Your task to perform on an android device: clear history in the chrome app Image 0: 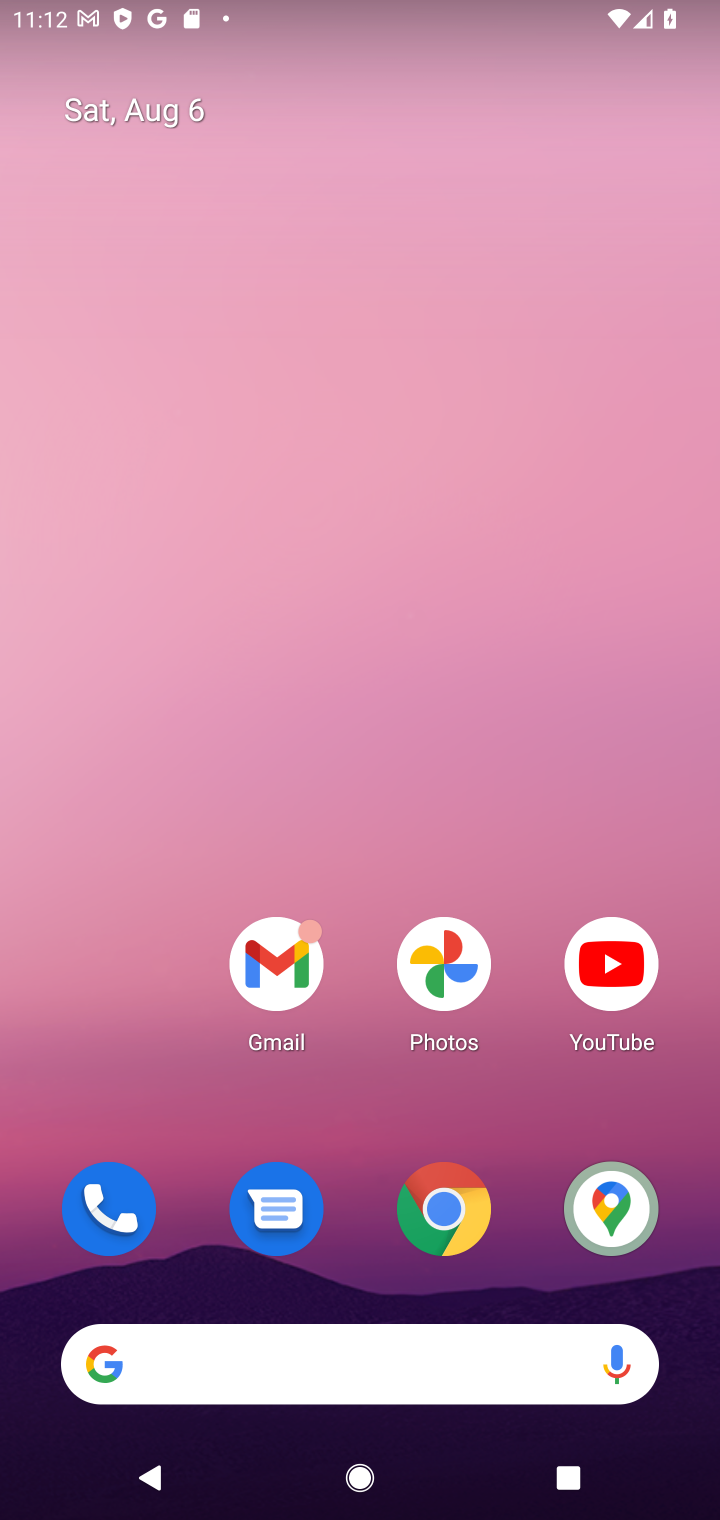
Step 0: drag from (475, 1142) to (393, 12)
Your task to perform on an android device: clear history in the chrome app Image 1: 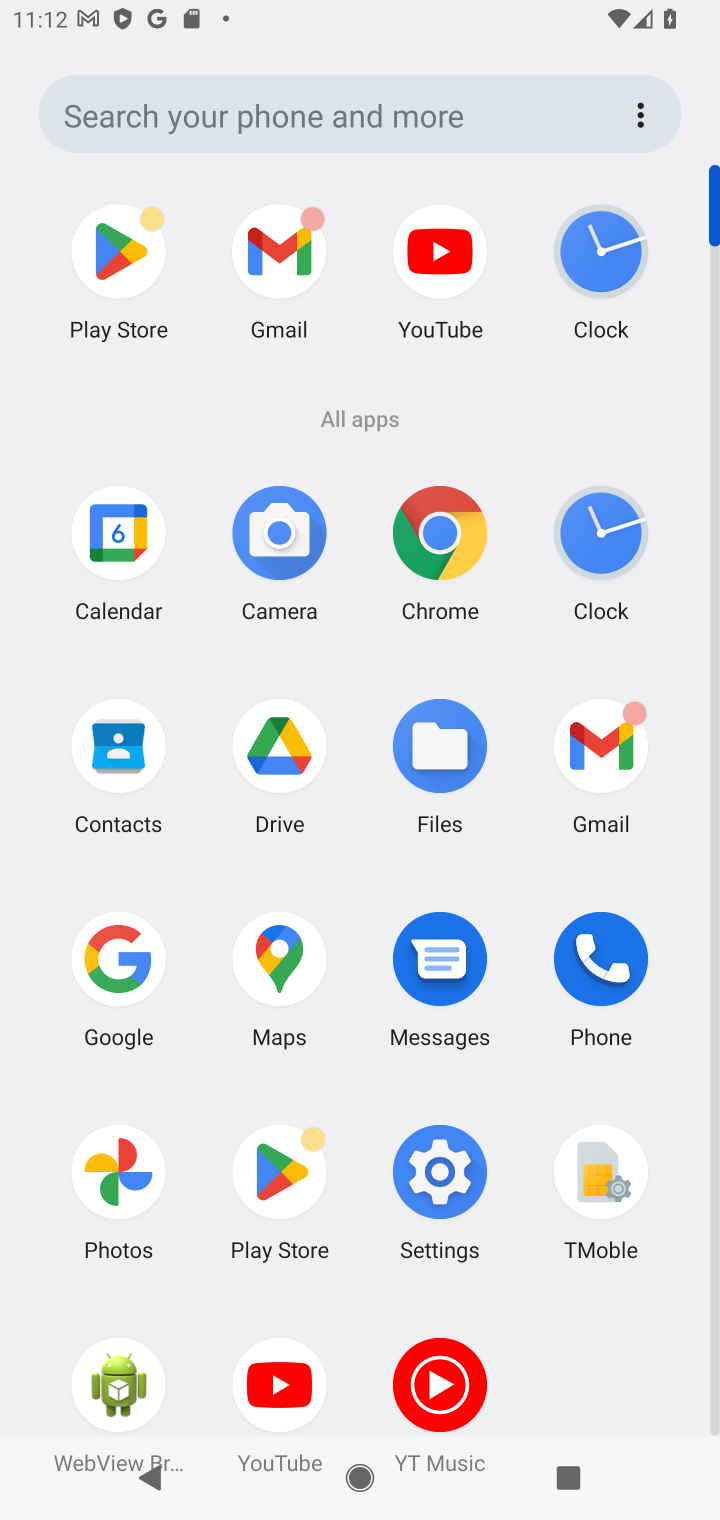
Step 1: click (472, 542)
Your task to perform on an android device: clear history in the chrome app Image 2: 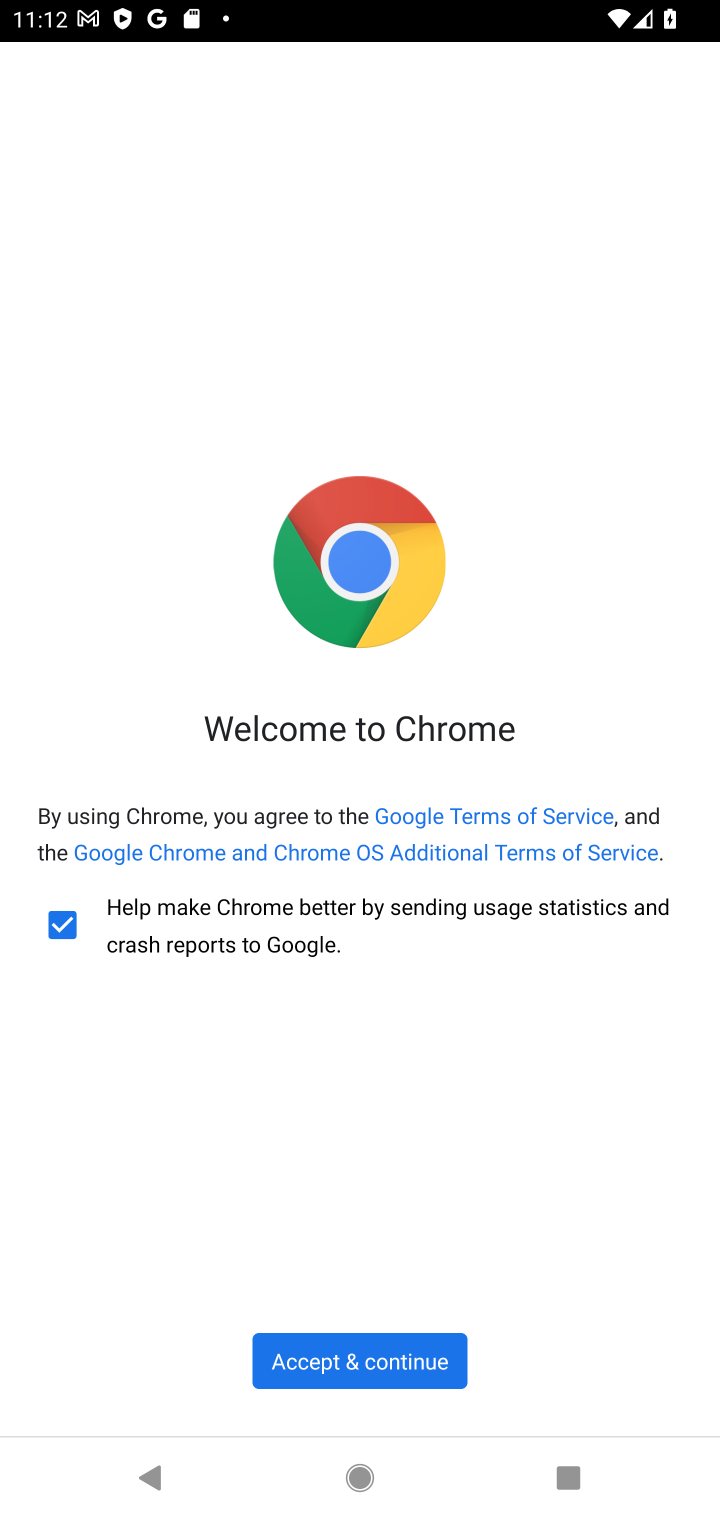
Step 2: click (306, 1358)
Your task to perform on an android device: clear history in the chrome app Image 3: 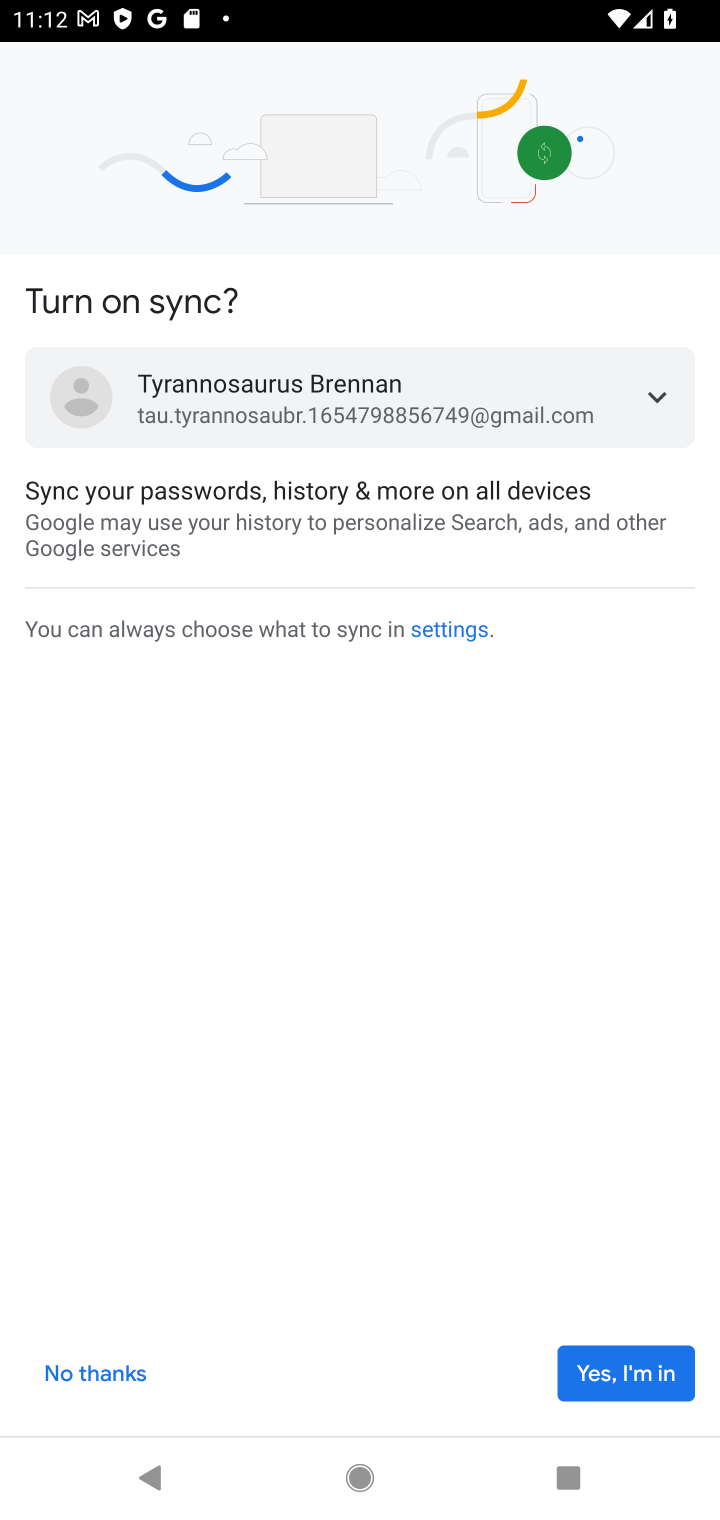
Step 3: click (606, 1357)
Your task to perform on an android device: clear history in the chrome app Image 4: 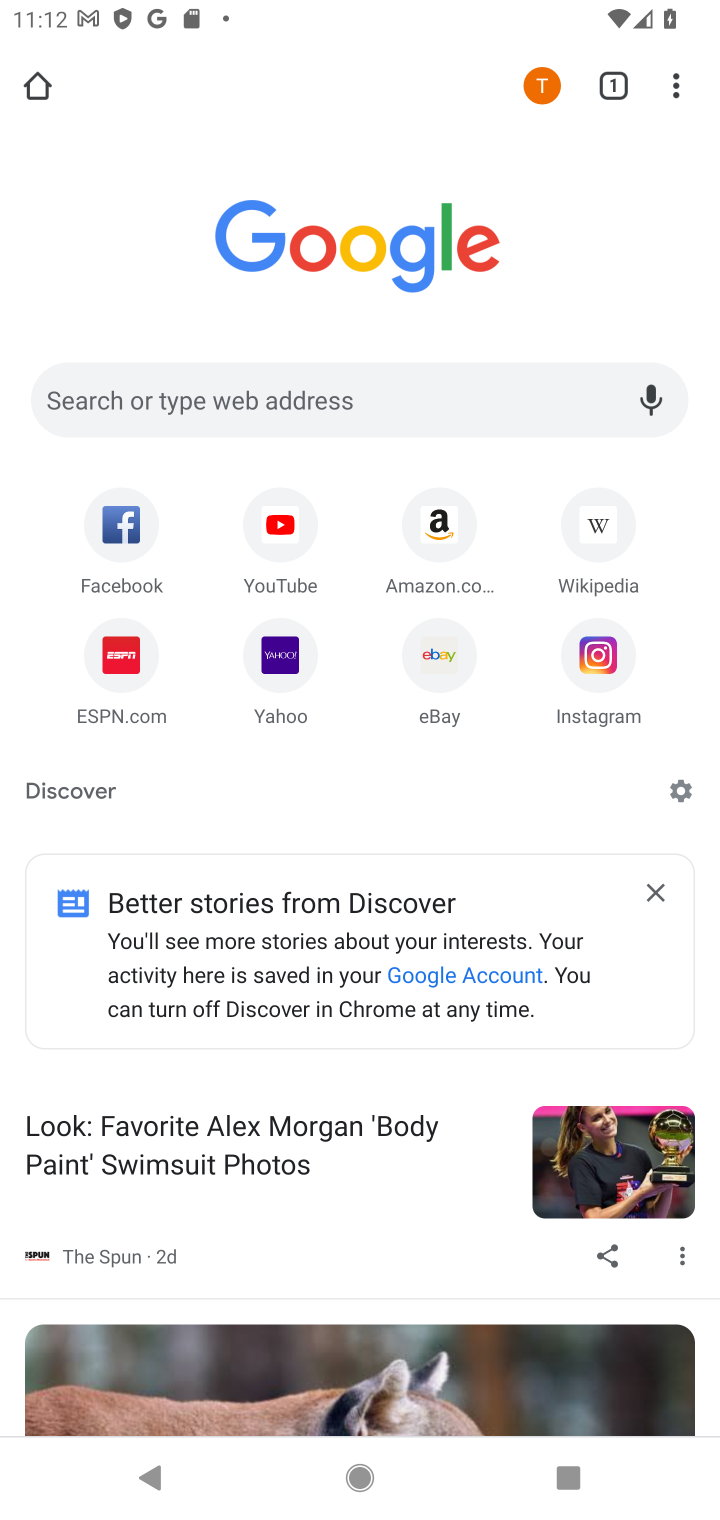
Step 4: click (678, 87)
Your task to perform on an android device: clear history in the chrome app Image 5: 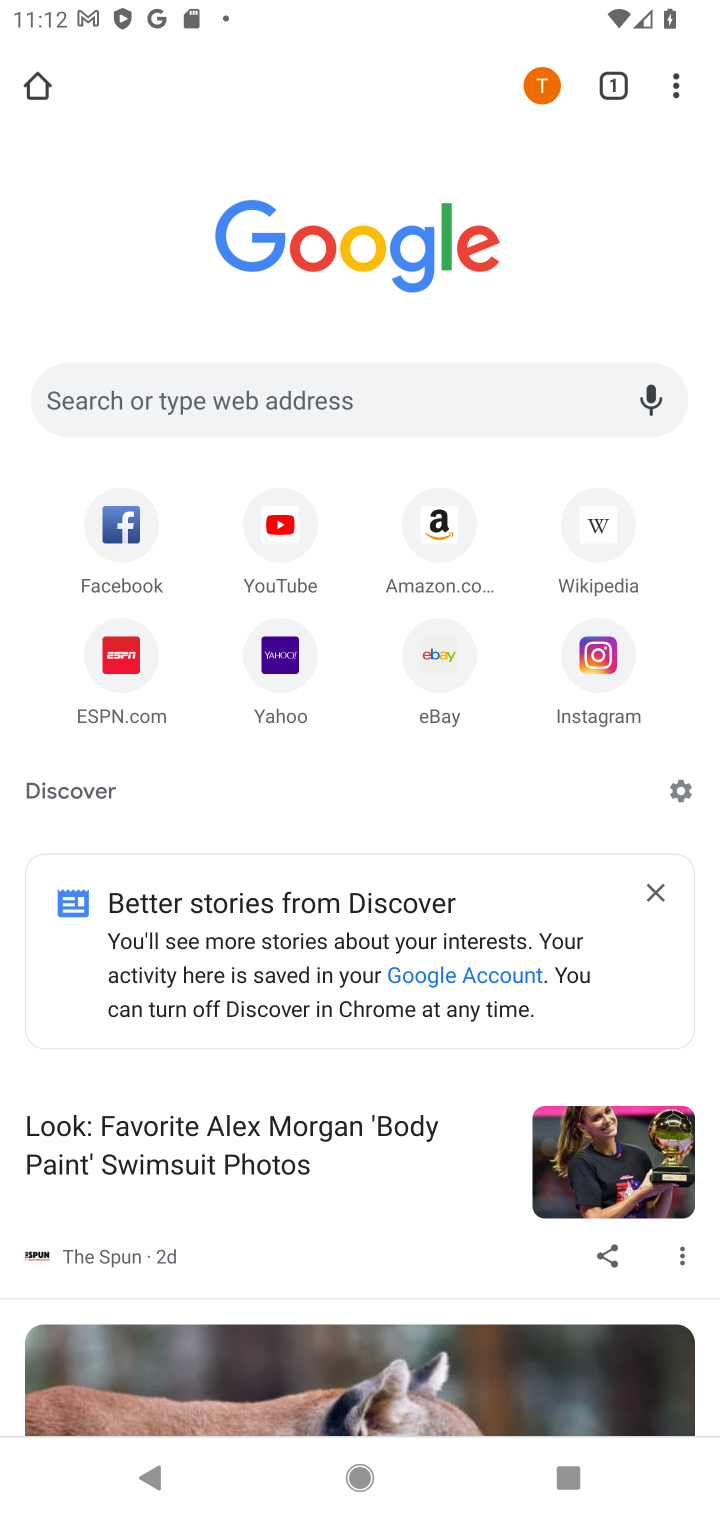
Step 5: click (678, 87)
Your task to perform on an android device: clear history in the chrome app Image 6: 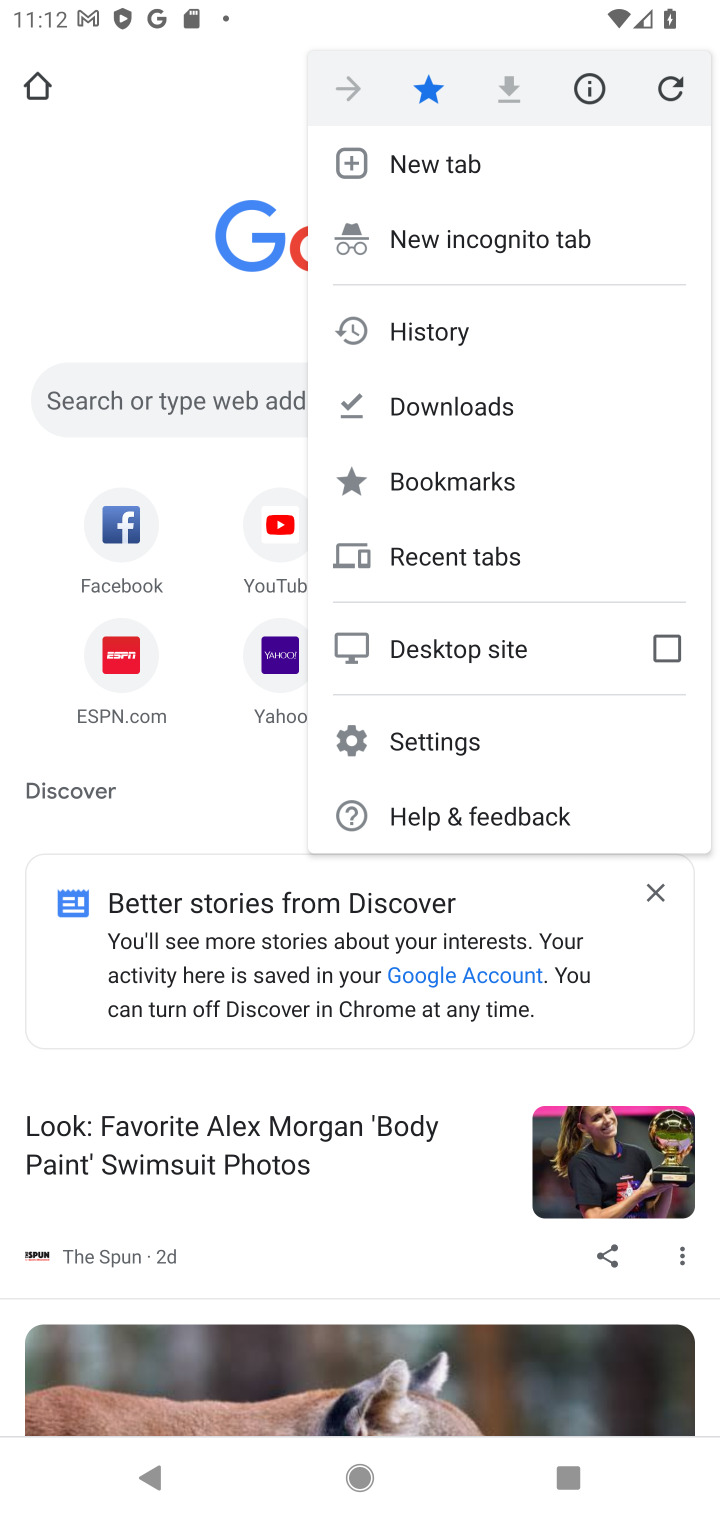
Step 6: click (457, 329)
Your task to perform on an android device: clear history in the chrome app Image 7: 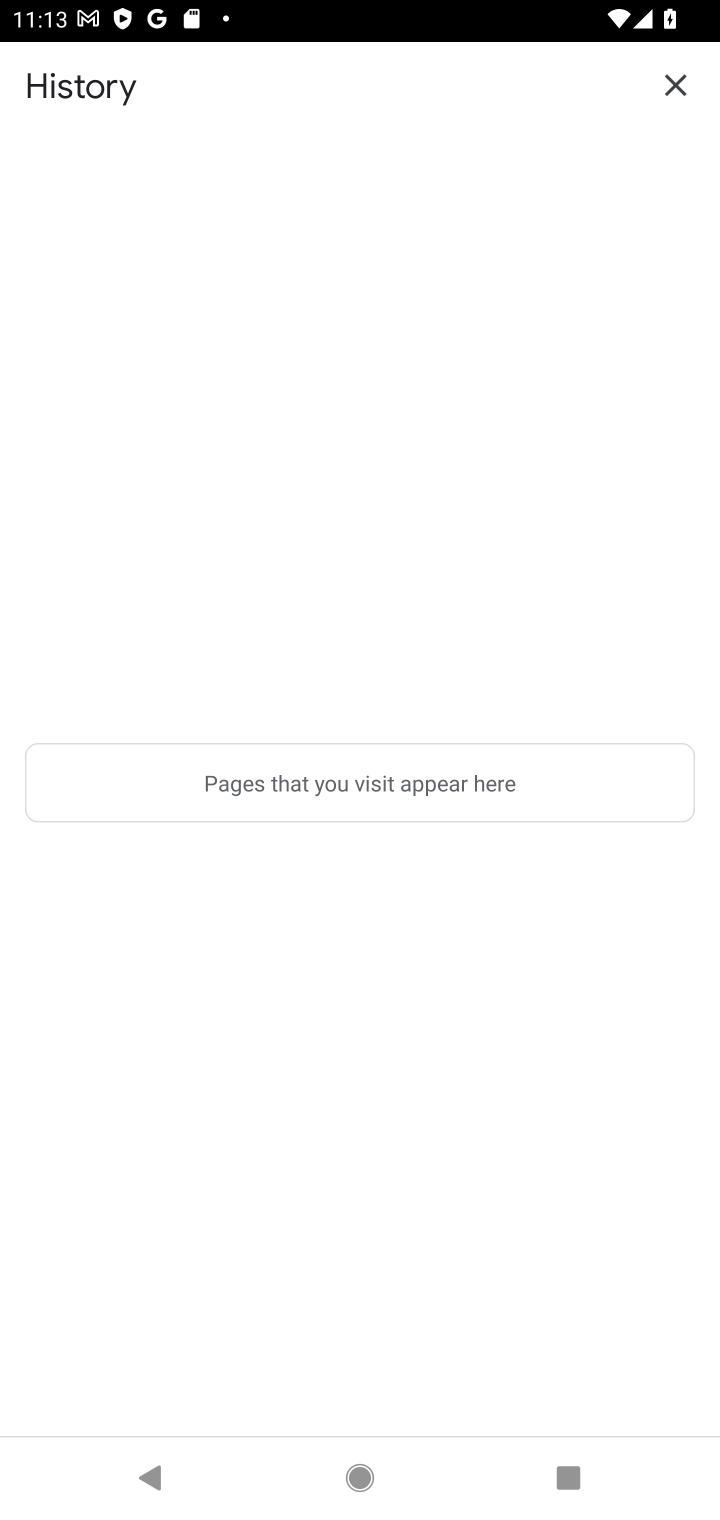
Step 7: task complete